Your task to perform on an android device: change the upload size in google photos Image 0: 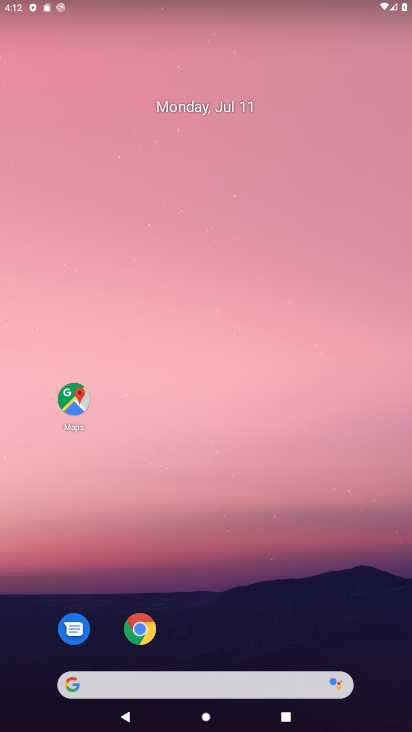
Step 0: drag from (217, 528) to (304, 102)
Your task to perform on an android device: change the upload size in google photos Image 1: 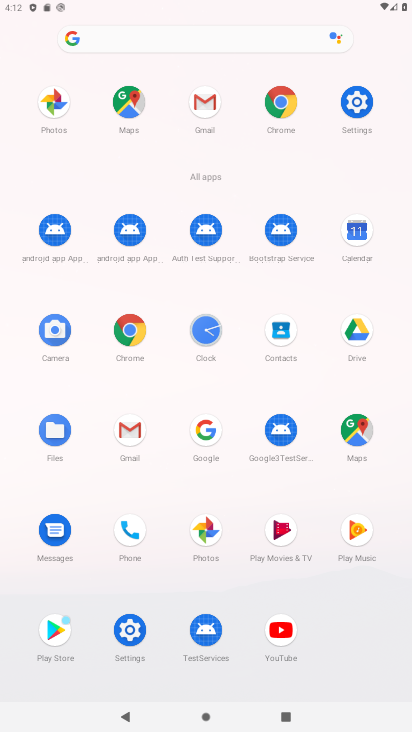
Step 1: click (199, 533)
Your task to perform on an android device: change the upload size in google photos Image 2: 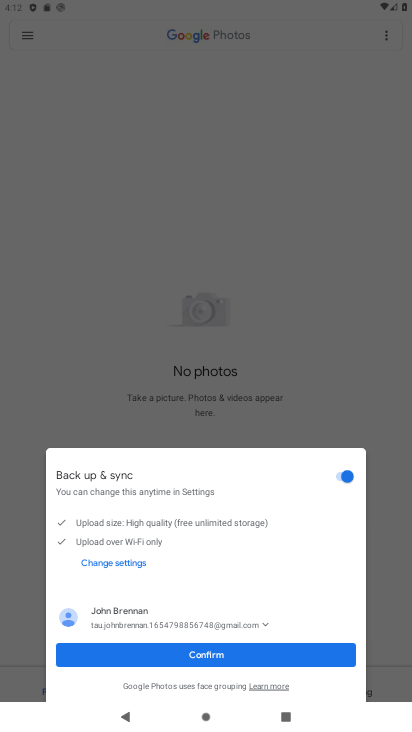
Step 2: click (209, 658)
Your task to perform on an android device: change the upload size in google photos Image 3: 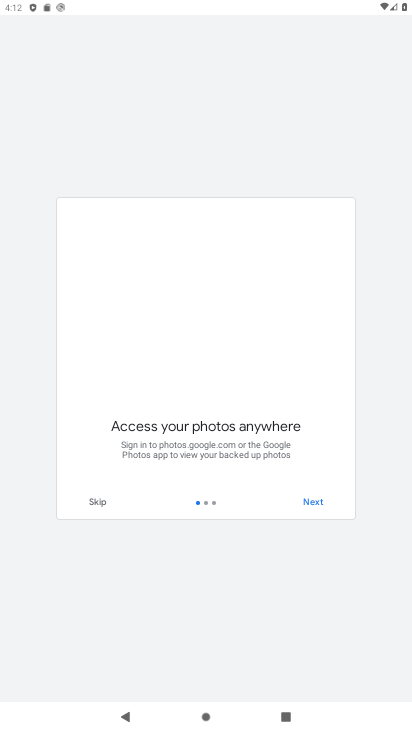
Step 3: click (303, 497)
Your task to perform on an android device: change the upload size in google photos Image 4: 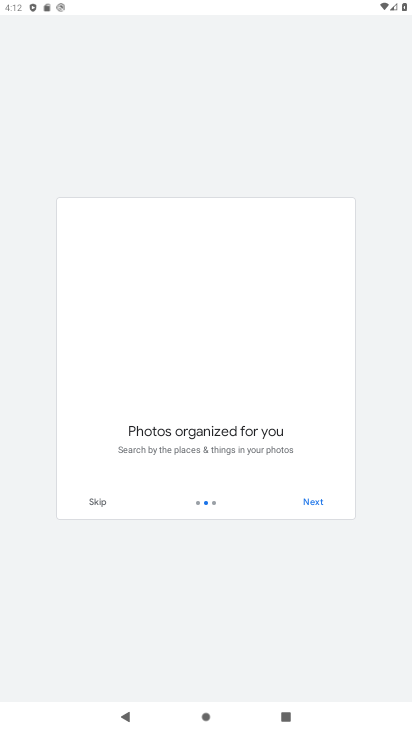
Step 4: click (309, 500)
Your task to perform on an android device: change the upload size in google photos Image 5: 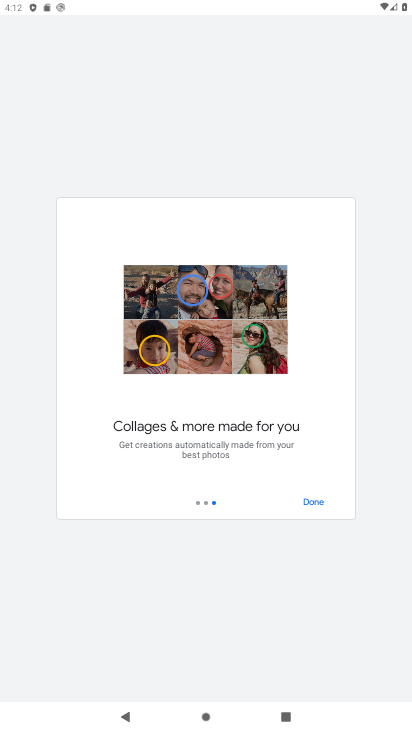
Step 5: click (309, 500)
Your task to perform on an android device: change the upload size in google photos Image 6: 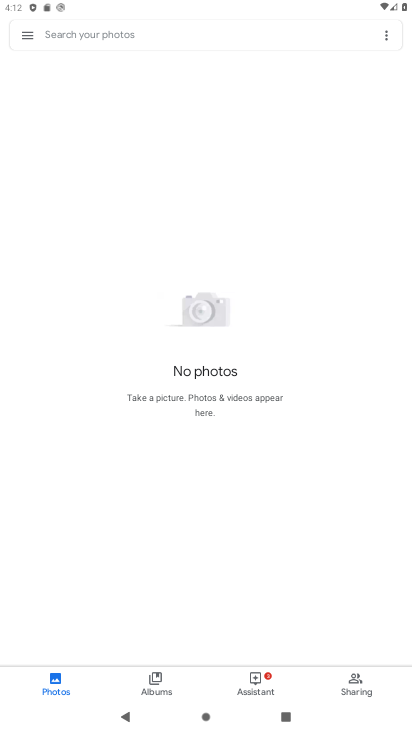
Step 6: click (40, 39)
Your task to perform on an android device: change the upload size in google photos Image 7: 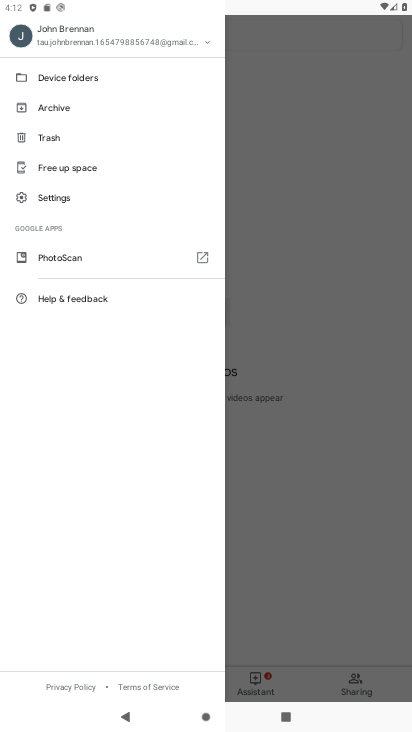
Step 7: click (97, 204)
Your task to perform on an android device: change the upload size in google photos Image 8: 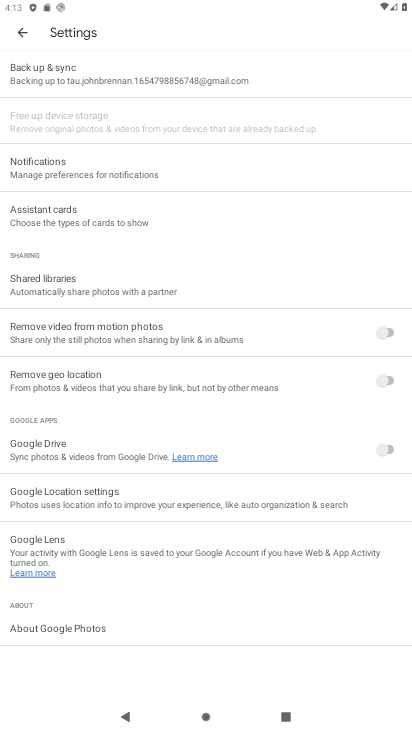
Step 8: click (144, 81)
Your task to perform on an android device: change the upload size in google photos Image 9: 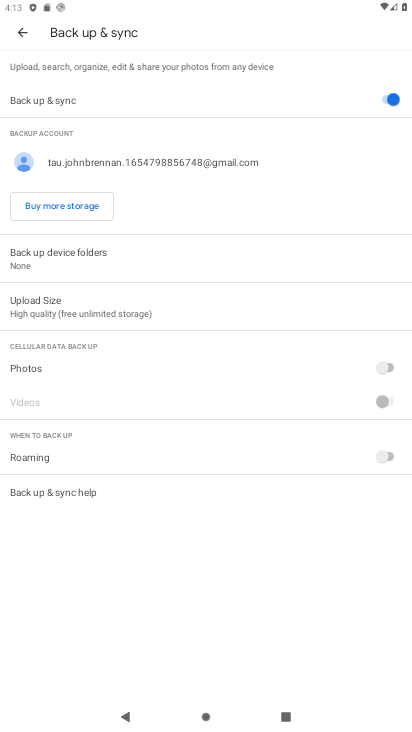
Step 9: click (116, 310)
Your task to perform on an android device: change the upload size in google photos Image 10: 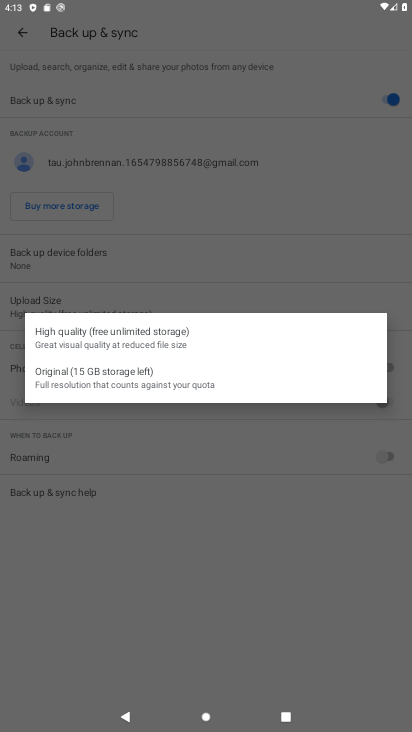
Step 10: click (123, 372)
Your task to perform on an android device: change the upload size in google photos Image 11: 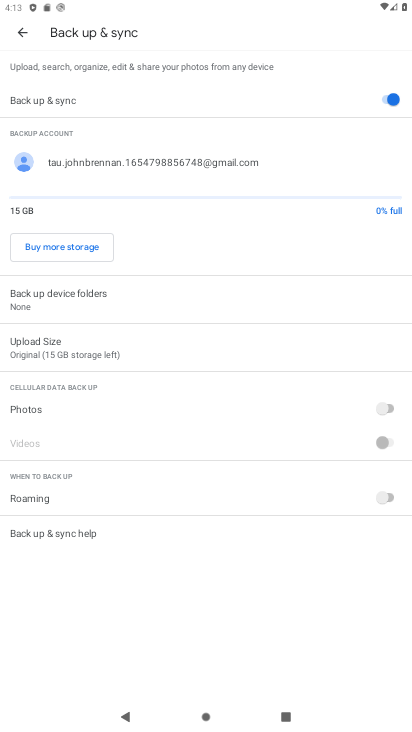
Step 11: task complete